Your task to perform on an android device: set an alarm Image 0: 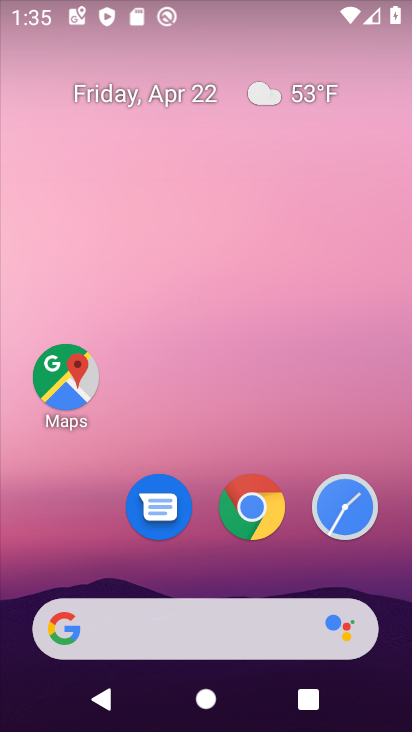
Step 0: click (348, 512)
Your task to perform on an android device: set an alarm Image 1: 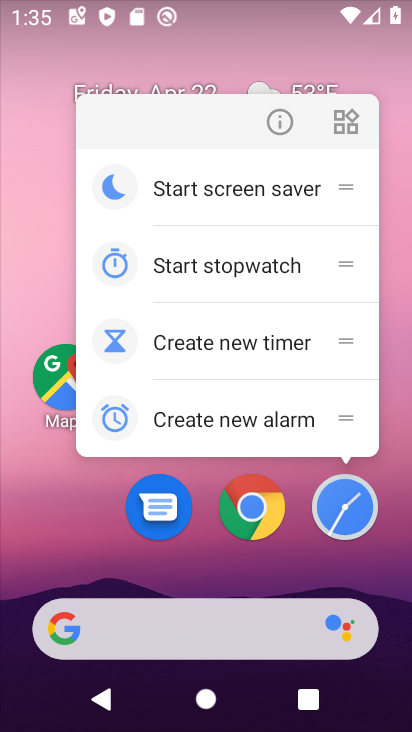
Step 1: click (347, 511)
Your task to perform on an android device: set an alarm Image 2: 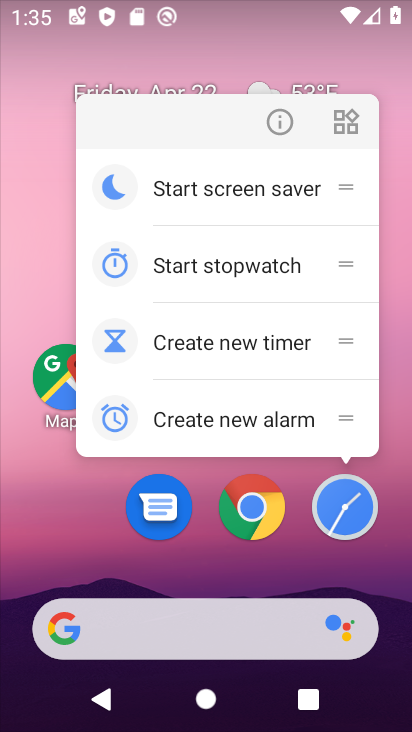
Step 2: click (359, 525)
Your task to perform on an android device: set an alarm Image 3: 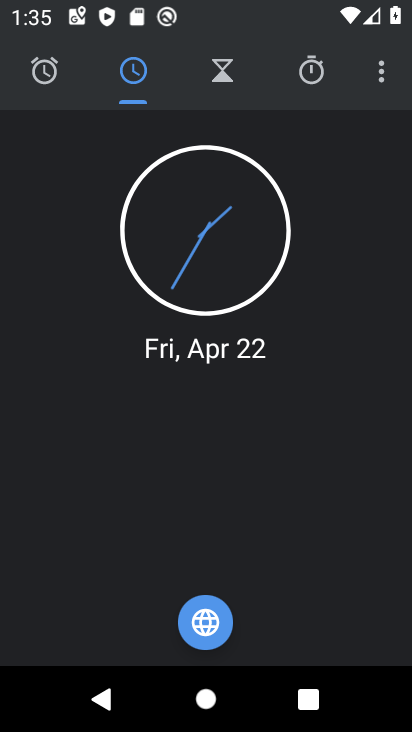
Step 3: click (43, 72)
Your task to perform on an android device: set an alarm Image 4: 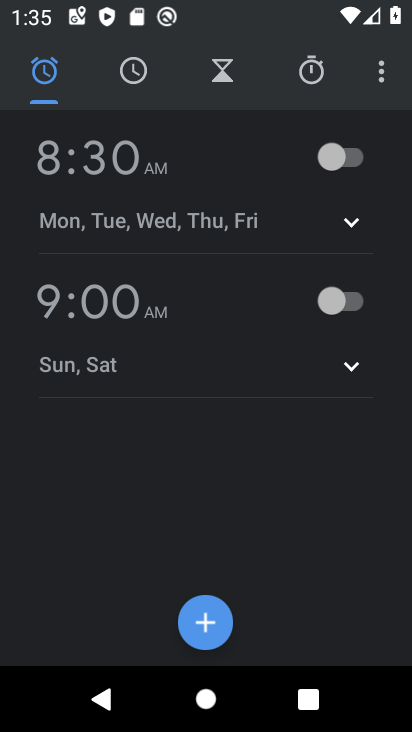
Step 4: click (359, 164)
Your task to perform on an android device: set an alarm Image 5: 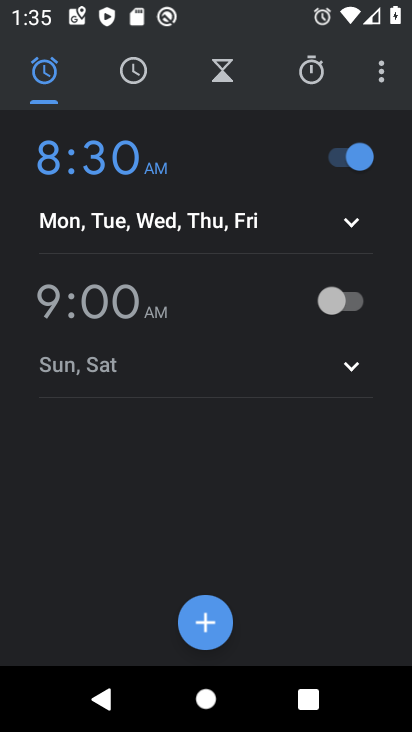
Step 5: task complete